Your task to perform on an android device: change notification settings in the gmail app Image 0: 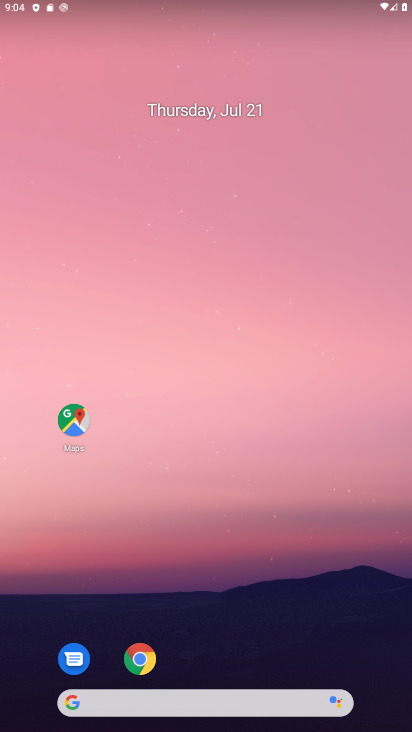
Step 0: drag from (260, 663) to (335, 473)
Your task to perform on an android device: change notification settings in the gmail app Image 1: 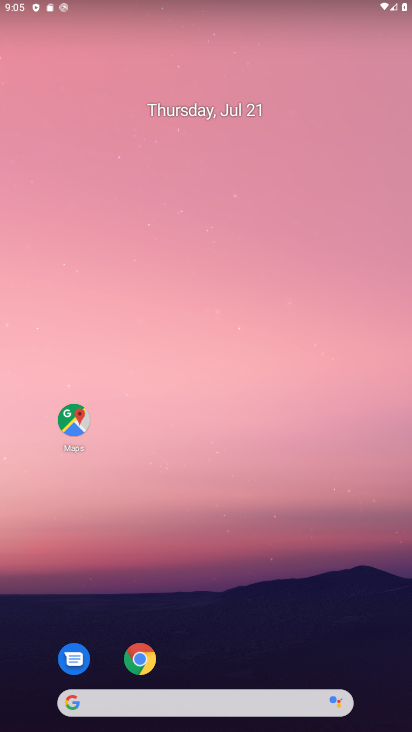
Step 1: drag from (222, 638) to (3, 722)
Your task to perform on an android device: change notification settings in the gmail app Image 2: 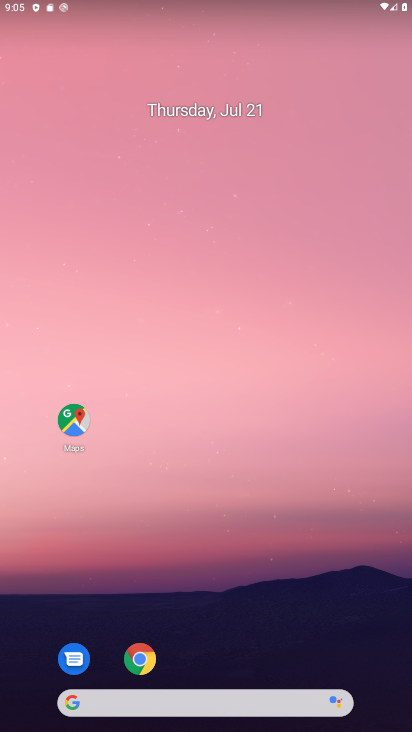
Step 2: drag from (205, 681) to (300, 436)
Your task to perform on an android device: change notification settings in the gmail app Image 3: 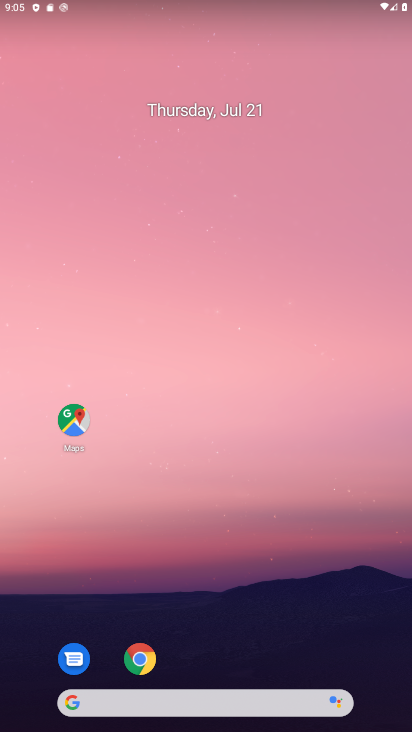
Step 3: drag from (177, 600) to (348, 6)
Your task to perform on an android device: change notification settings in the gmail app Image 4: 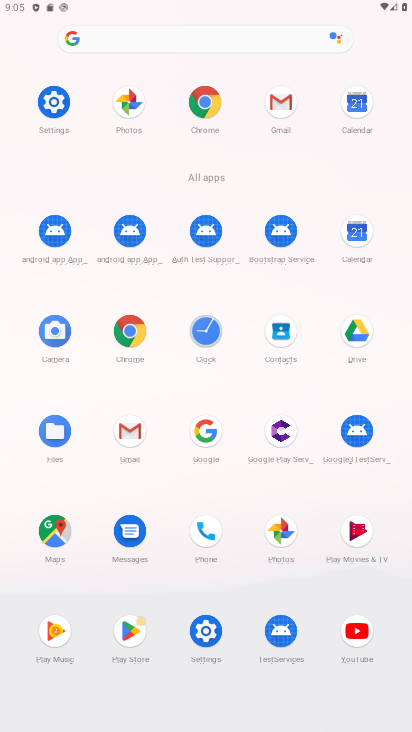
Step 4: click (126, 425)
Your task to perform on an android device: change notification settings in the gmail app Image 5: 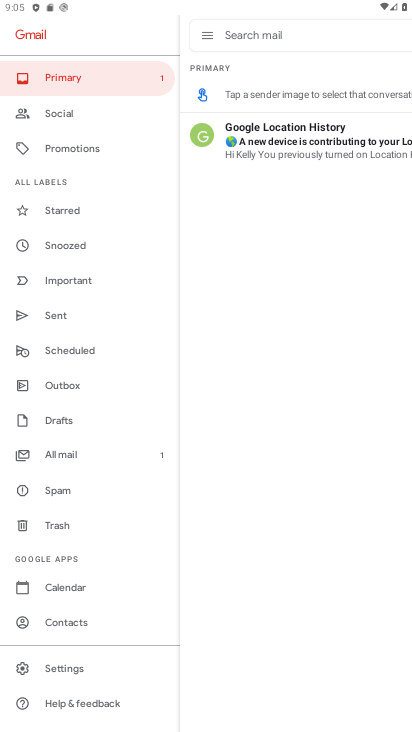
Step 5: click (76, 668)
Your task to perform on an android device: change notification settings in the gmail app Image 6: 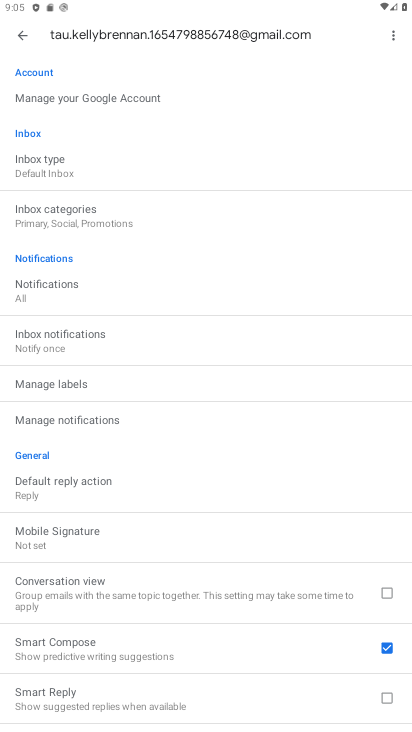
Step 6: click (23, 28)
Your task to perform on an android device: change notification settings in the gmail app Image 7: 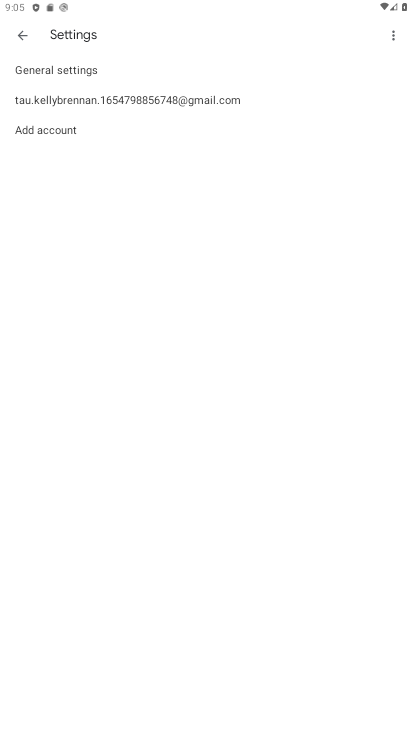
Step 7: click (66, 61)
Your task to perform on an android device: change notification settings in the gmail app Image 8: 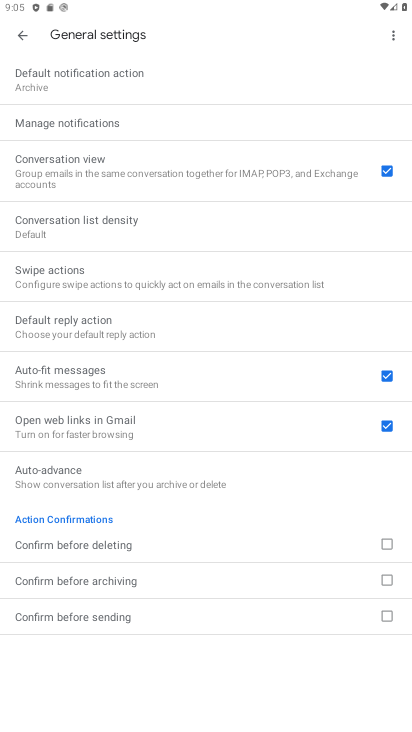
Step 8: click (79, 118)
Your task to perform on an android device: change notification settings in the gmail app Image 9: 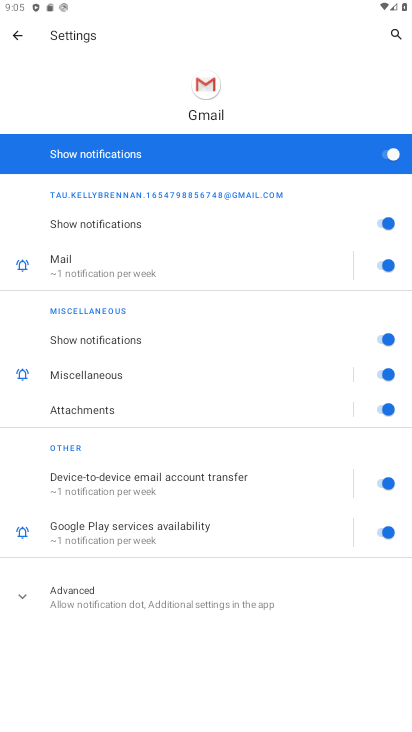
Step 9: click (379, 159)
Your task to perform on an android device: change notification settings in the gmail app Image 10: 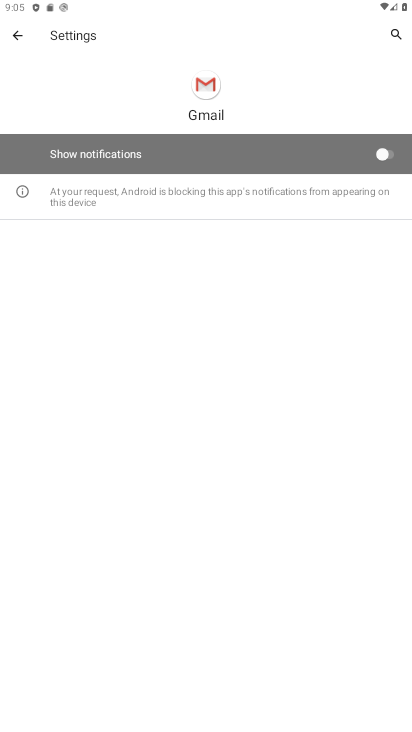
Step 10: task complete